Your task to perform on an android device: Open Google Chrome and click the shortcut for Amazon.com Image 0: 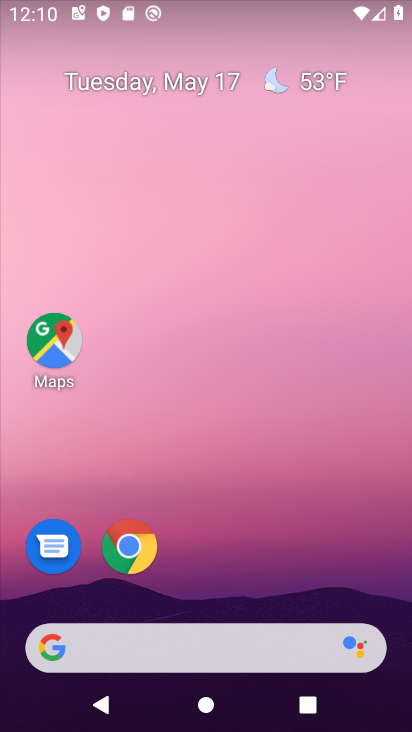
Step 0: click (132, 545)
Your task to perform on an android device: Open Google Chrome and click the shortcut for Amazon.com Image 1: 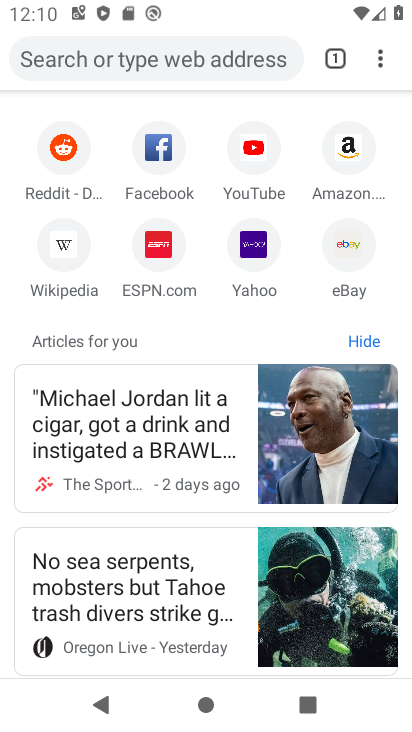
Step 1: click (358, 151)
Your task to perform on an android device: Open Google Chrome and click the shortcut for Amazon.com Image 2: 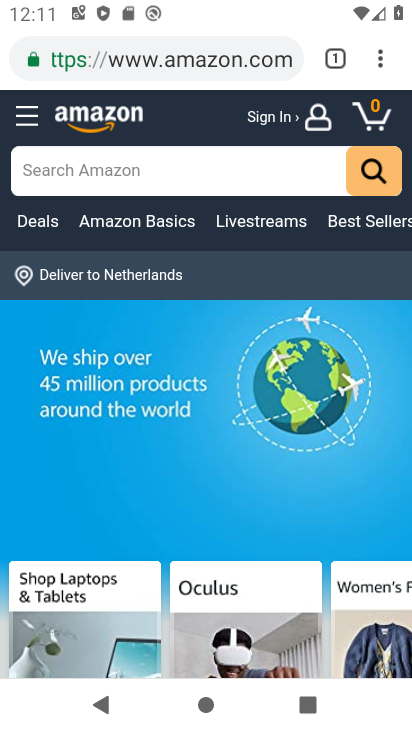
Step 2: task complete